Your task to perform on an android device: Go to display settings Image 0: 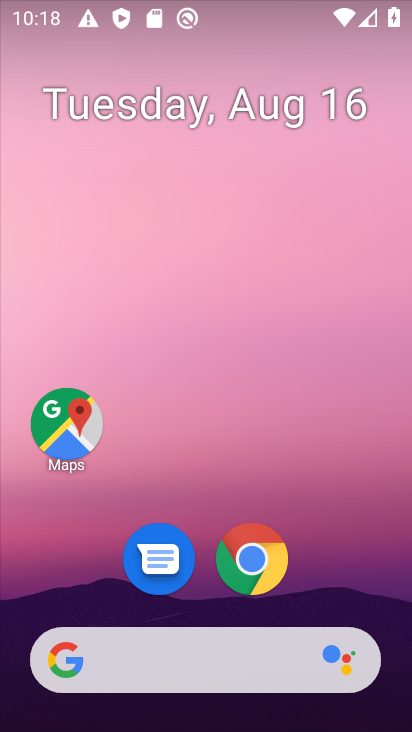
Step 0: drag from (230, 107) to (315, 5)
Your task to perform on an android device: Go to display settings Image 1: 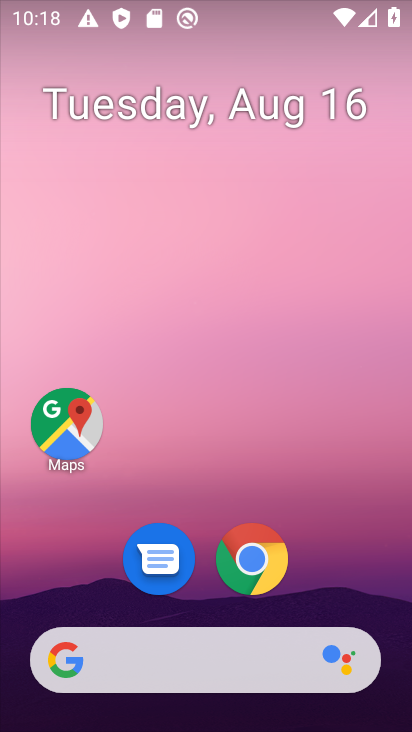
Step 1: drag from (201, 523) to (202, 135)
Your task to perform on an android device: Go to display settings Image 2: 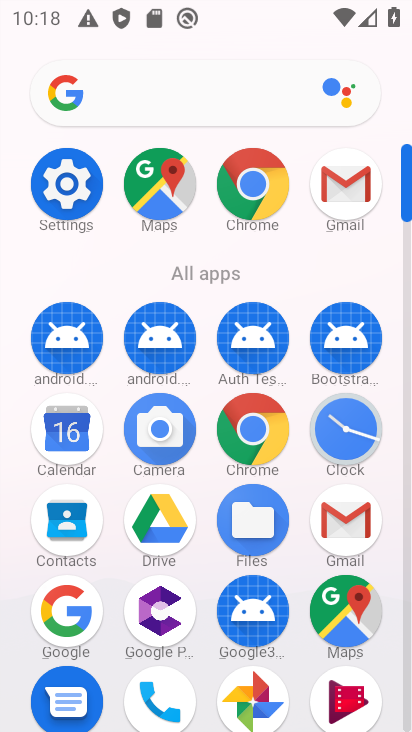
Step 2: click (65, 183)
Your task to perform on an android device: Go to display settings Image 3: 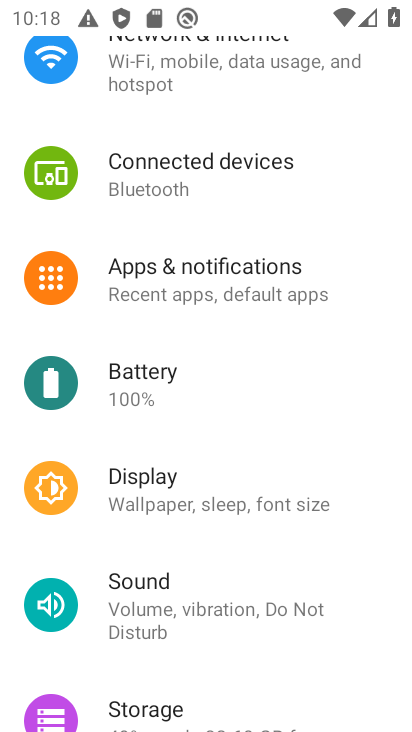
Step 3: click (168, 513)
Your task to perform on an android device: Go to display settings Image 4: 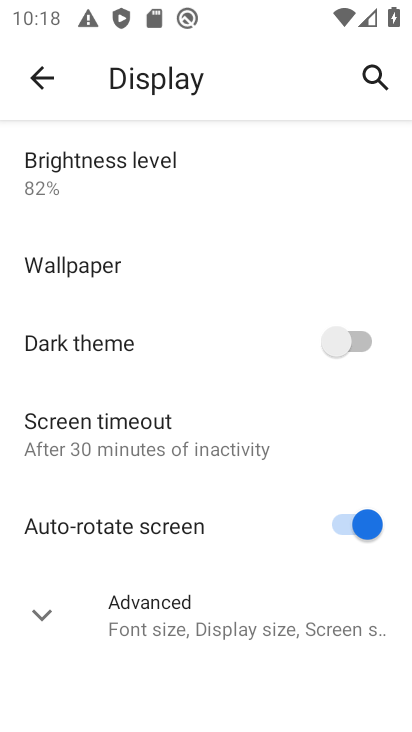
Step 4: task complete